Your task to perform on an android device: Go to wifi settings Image 0: 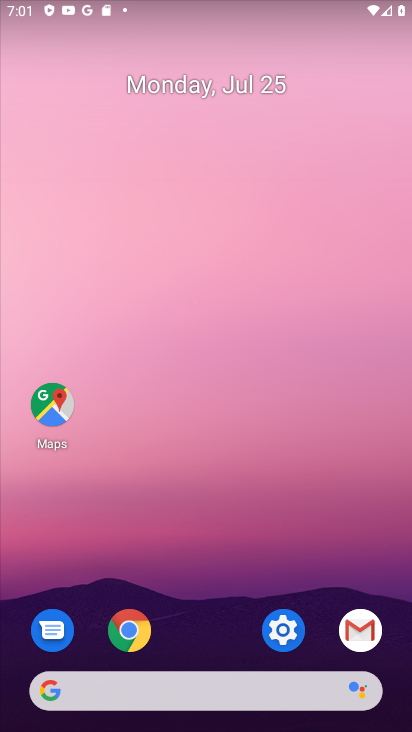
Step 0: click (289, 626)
Your task to perform on an android device: Go to wifi settings Image 1: 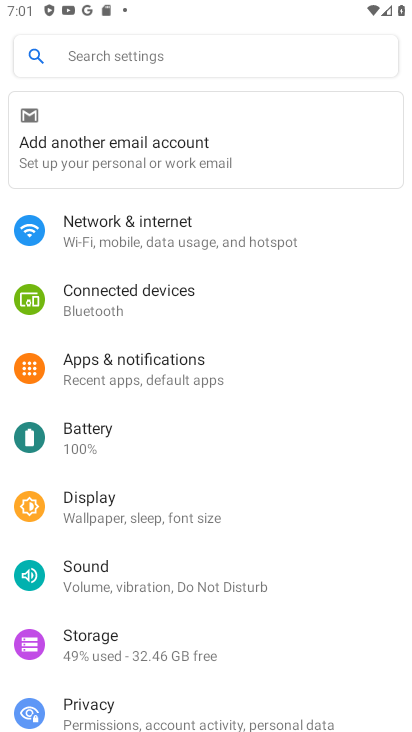
Step 1: click (146, 228)
Your task to perform on an android device: Go to wifi settings Image 2: 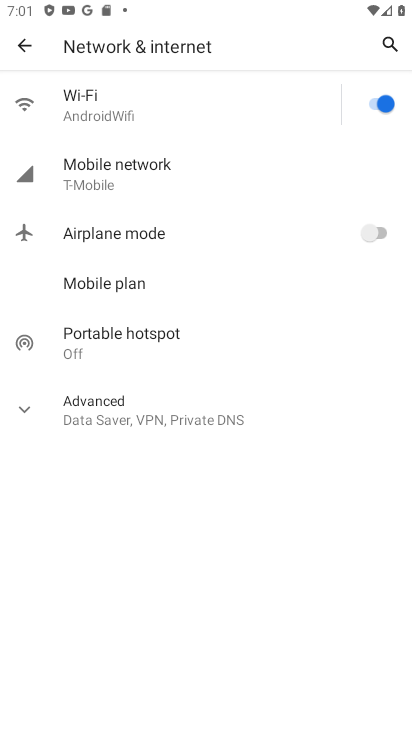
Step 2: click (143, 115)
Your task to perform on an android device: Go to wifi settings Image 3: 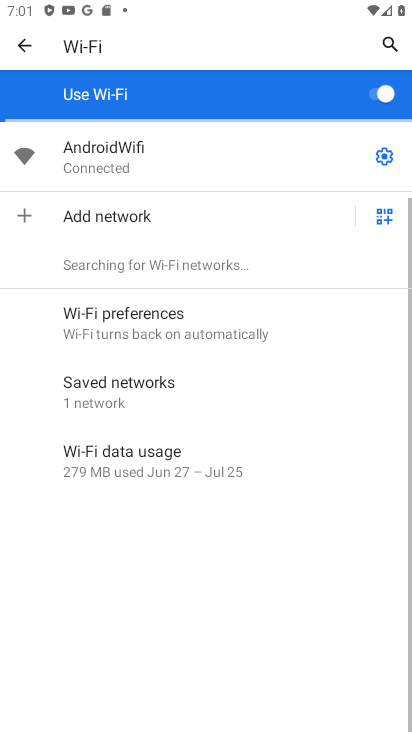
Step 3: task complete